Your task to perform on an android device: turn notification dots off Image 0: 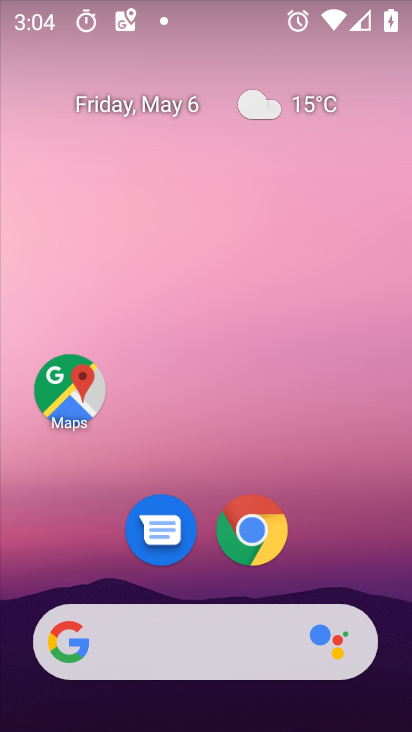
Step 0: drag from (361, 484) to (337, 44)
Your task to perform on an android device: turn notification dots off Image 1: 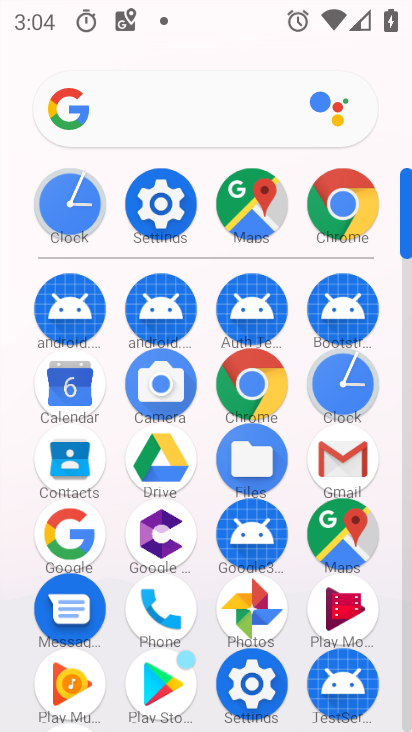
Step 1: click (151, 209)
Your task to perform on an android device: turn notification dots off Image 2: 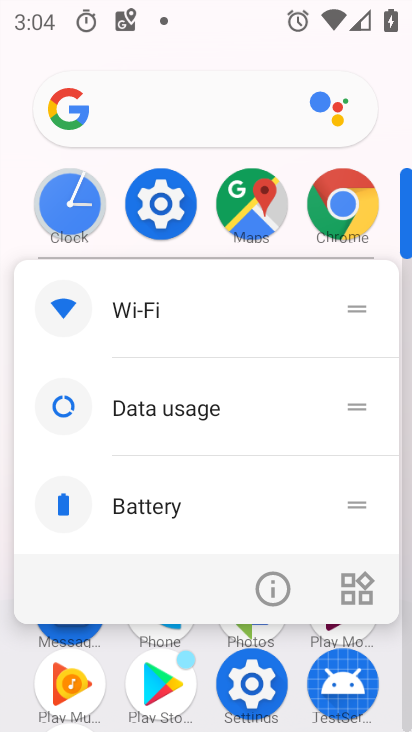
Step 2: click (151, 208)
Your task to perform on an android device: turn notification dots off Image 3: 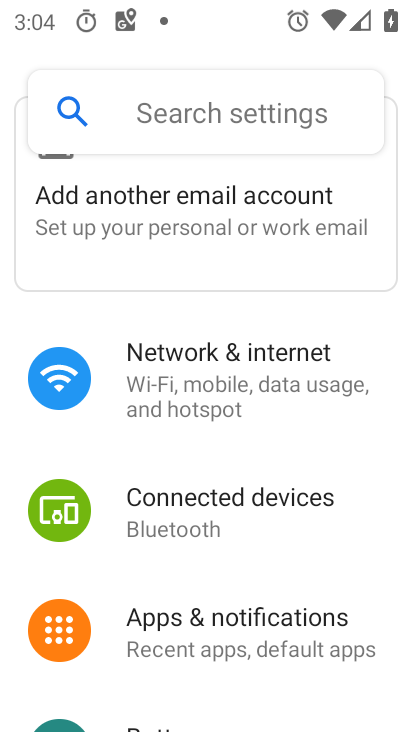
Step 3: click (285, 650)
Your task to perform on an android device: turn notification dots off Image 4: 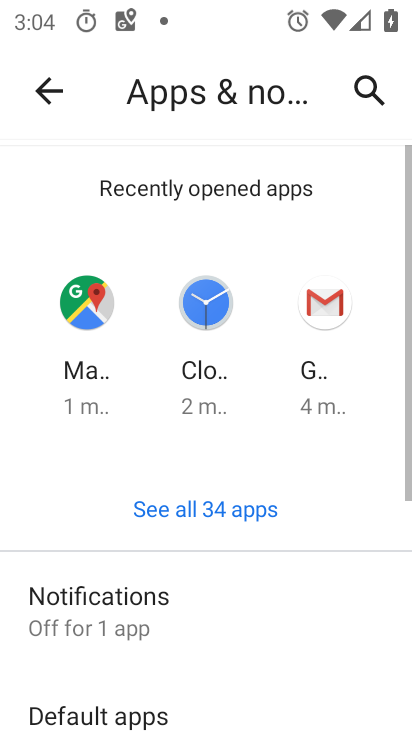
Step 4: click (104, 605)
Your task to perform on an android device: turn notification dots off Image 5: 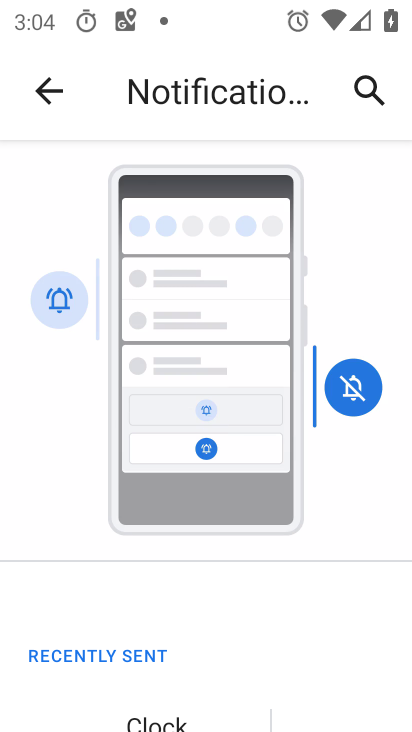
Step 5: drag from (177, 679) to (254, 133)
Your task to perform on an android device: turn notification dots off Image 6: 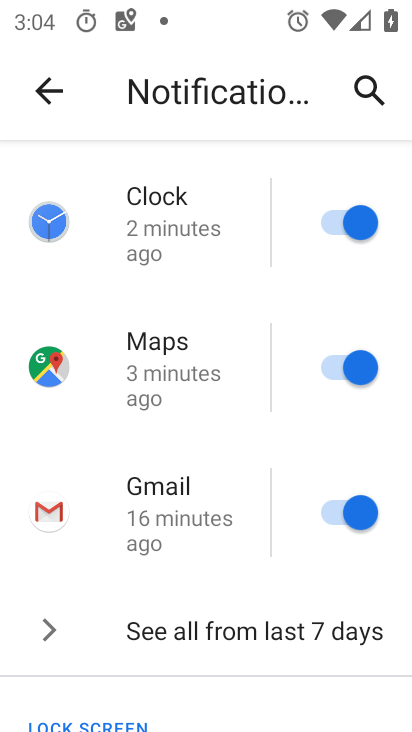
Step 6: drag from (188, 606) to (256, 143)
Your task to perform on an android device: turn notification dots off Image 7: 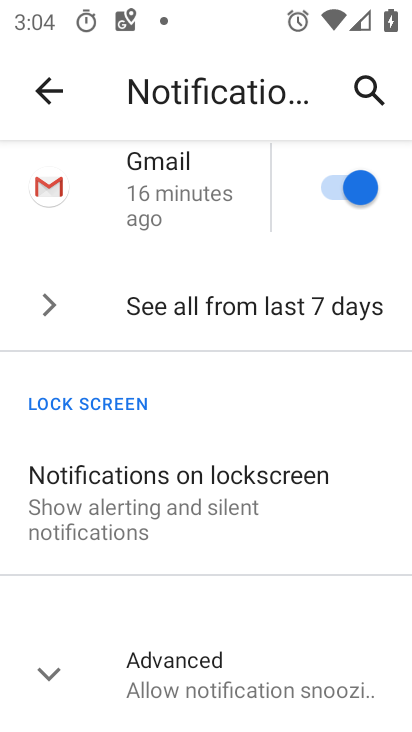
Step 7: click (180, 656)
Your task to perform on an android device: turn notification dots off Image 8: 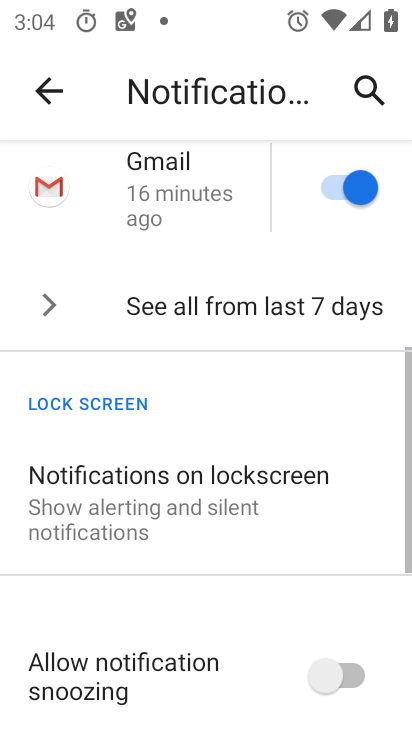
Step 8: drag from (192, 672) to (261, 162)
Your task to perform on an android device: turn notification dots off Image 9: 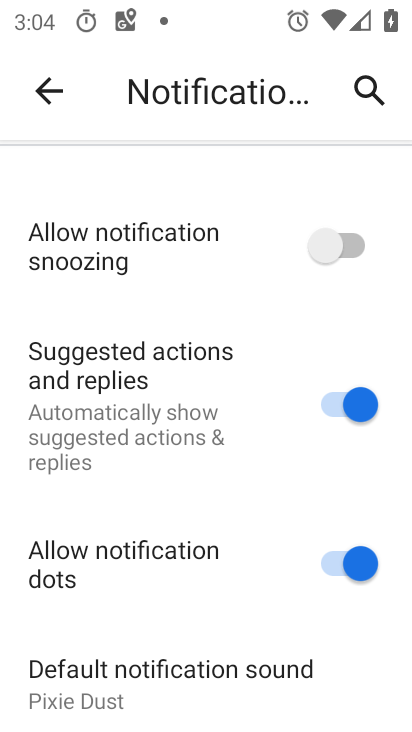
Step 9: drag from (190, 591) to (189, 349)
Your task to perform on an android device: turn notification dots off Image 10: 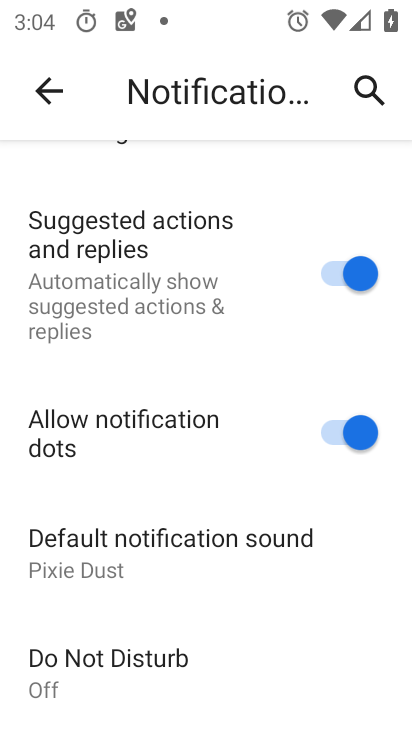
Step 10: click (362, 427)
Your task to perform on an android device: turn notification dots off Image 11: 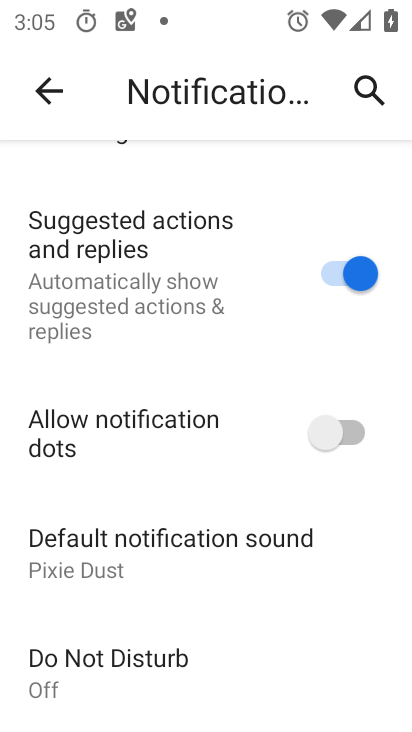
Step 11: task complete